Your task to perform on an android device: open app "Roku - Official Remote Control" Image 0: 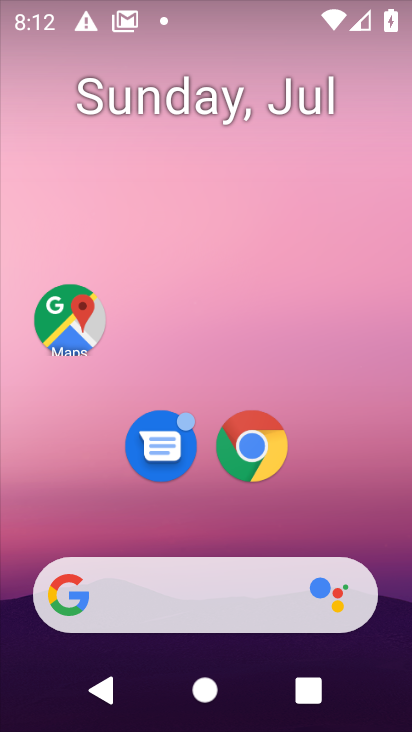
Step 0: drag from (220, 523) to (233, 11)
Your task to perform on an android device: open app "Roku - Official Remote Control" Image 1: 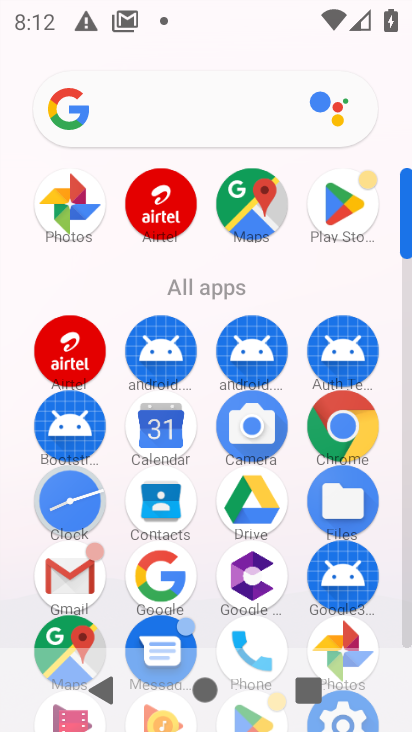
Step 1: click (341, 187)
Your task to perform on an android device: open app "Roku - Official Remote Control" Image 2: 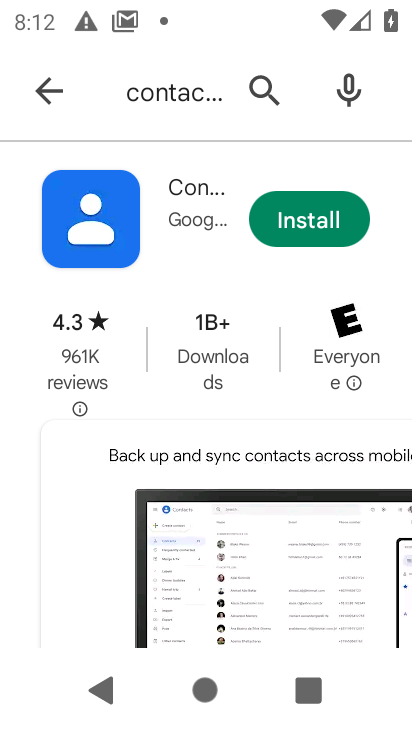
Step 2: click (250, 80)
Your task to perform on an android device: open app "Roku - Official Remote Control" Image 3: 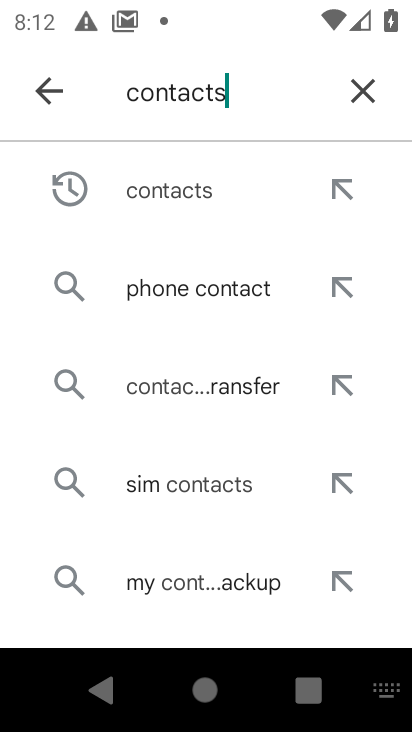
Step 3: type "Roku - Official Remote Control"
Your task to perform on an android device: open app "Roku - Official Remote Control" Image 4: 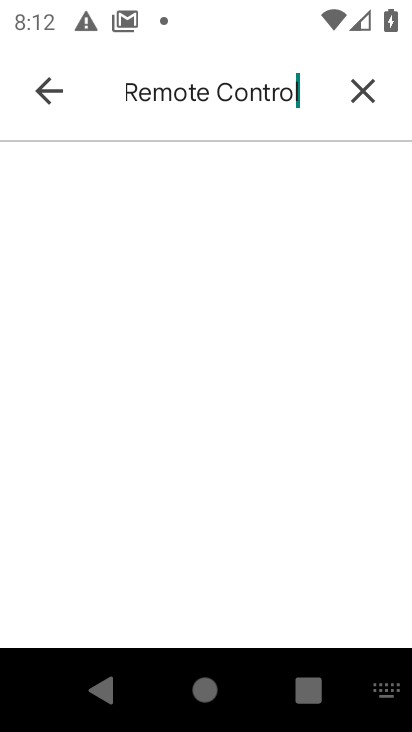
Step 4: task complete